Your task to perform on an android device: turn on improve location accuracy Image 0: 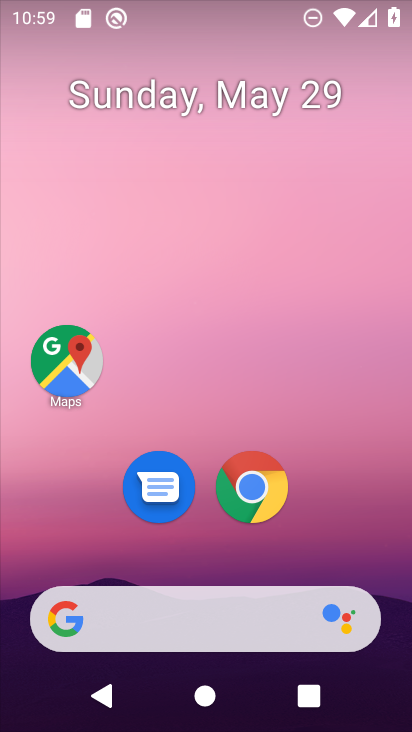
Step 0: drag from (193, 562) to (225, 45)
Your task to perform on an android device: turn on improve location accuracy Image 1: 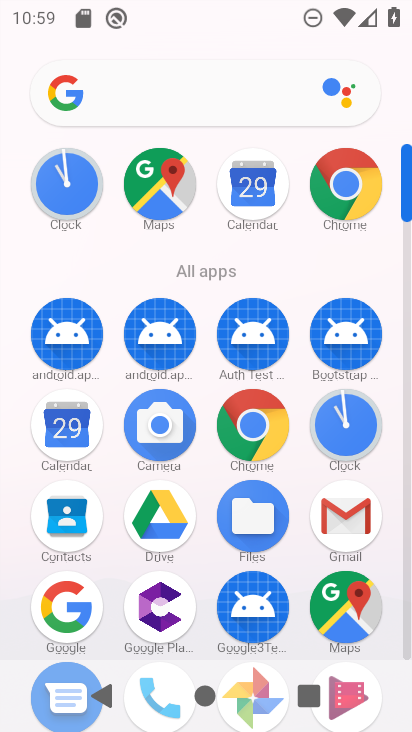
Step 1: drag from (204, 563) to (204, 91)
Your task to perform on an android device: turn on improve location accuracy Image 2: 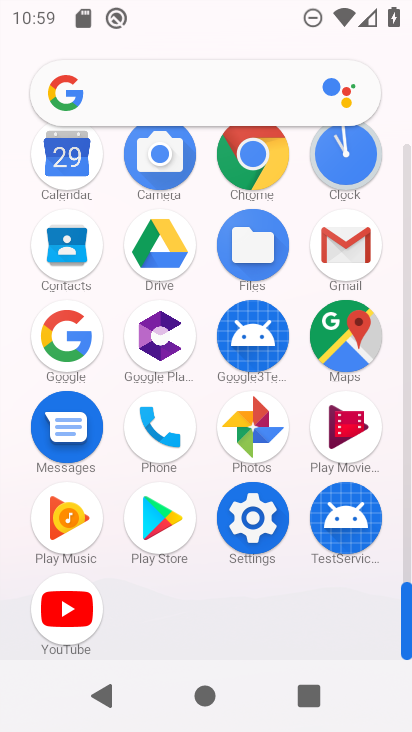
Step 2: click (255, 513)
Your task to perform on an android device: turn on improve location accuracy Image 3: 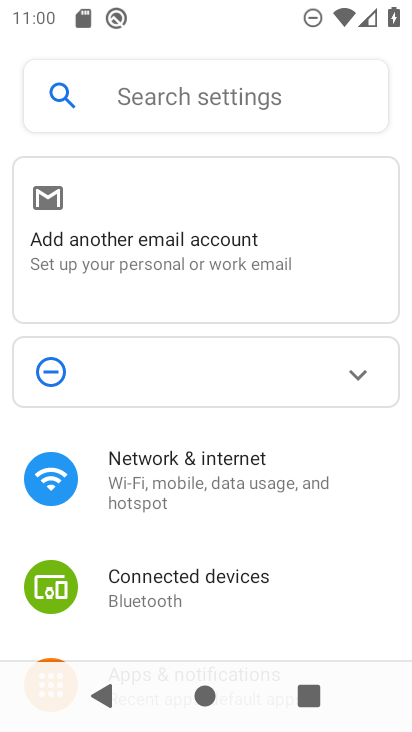
Step 3: drag from (218, 606) to (206, 157)
Your task to perform on an android device: turn on improve location accuracy Image 4: 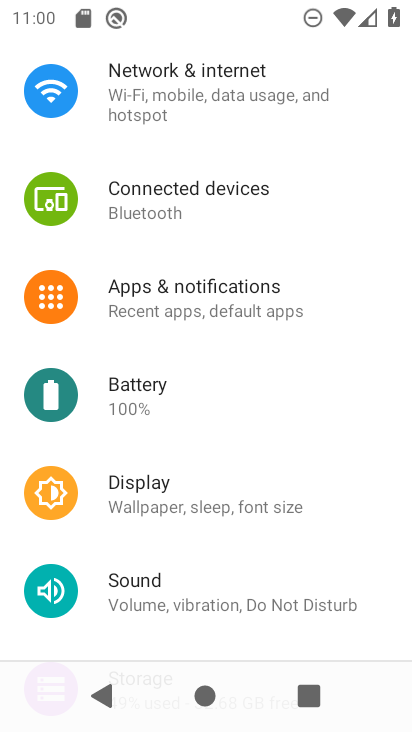
Step 4: drag from (196, 597) to (190, 48)
Your task to perform on an android device: turn on improve location accuracy Image 5: 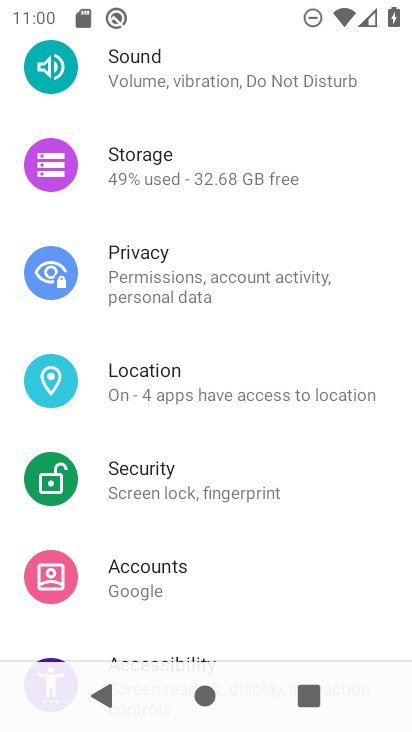
Step 5: click (189, 373)
Your task to perform on an android device: turn on improve location accuracy Image 6: 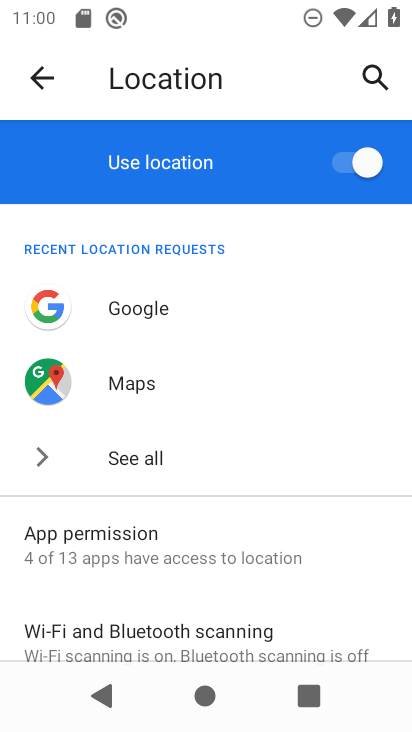
Step 6: drag from (190, 581) to (190, 118)
Your task to perform on an android device: turn on improve location accuracy Image 7: 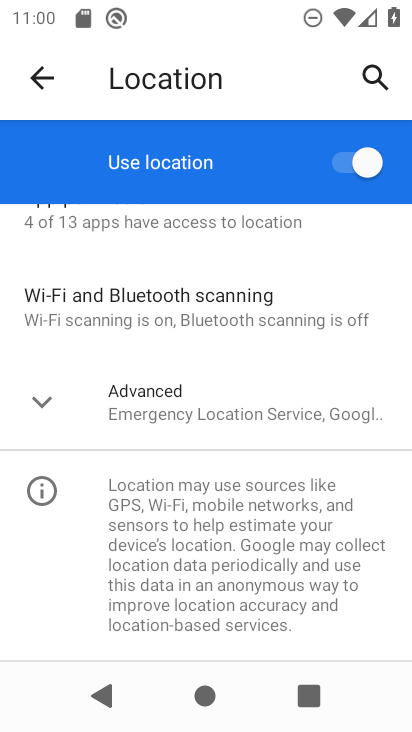
Step 7: click (45, 395)
Your task to perform on an android device: turn on improve location accuracy Image 8: 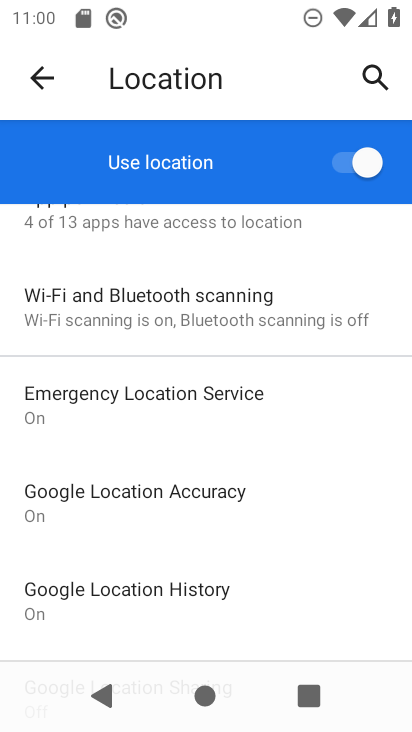
Step 8: click (146, 507)
Your task to perform on an android device: turn on improve location accuracy Image 9: 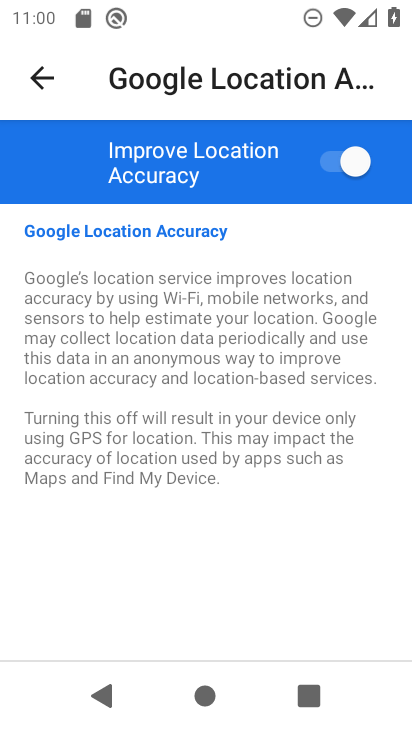
Step 9: task complete